Your task to perform on an android device: Show the shopping cart on costco.com. Search for "alienware area 51" on costco.com, select the first entry, add it to the cart, then select checkout. Image 0: 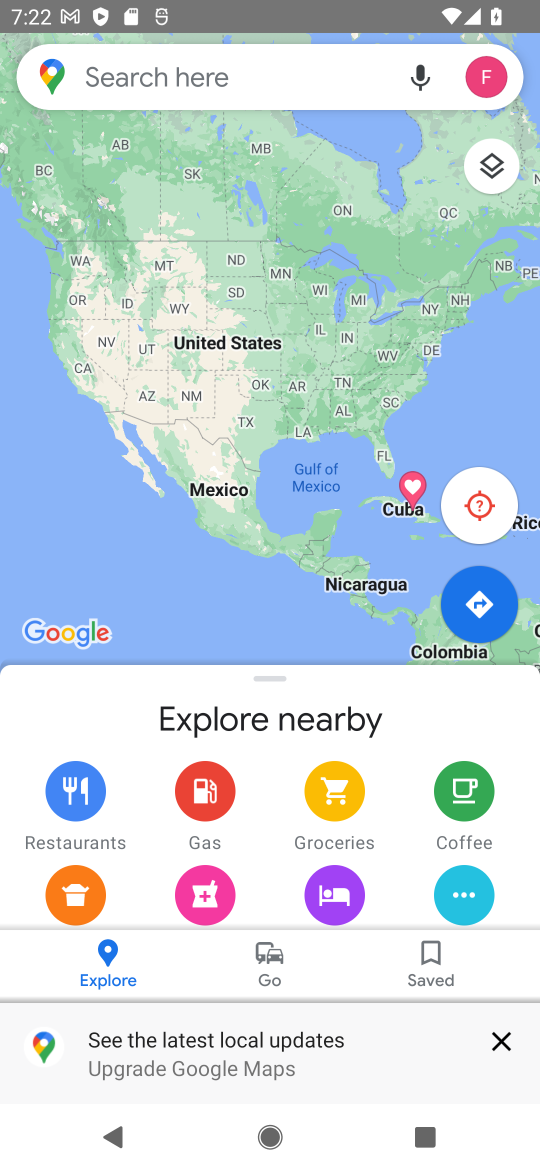
Step 0: click (508, 1030)
Your task to perform on an android device: Show the shopping cart on costco.com. Search for "alienware area 51" on costco.com, select the first entry, add it to the cart, then select checkout. Image 1: 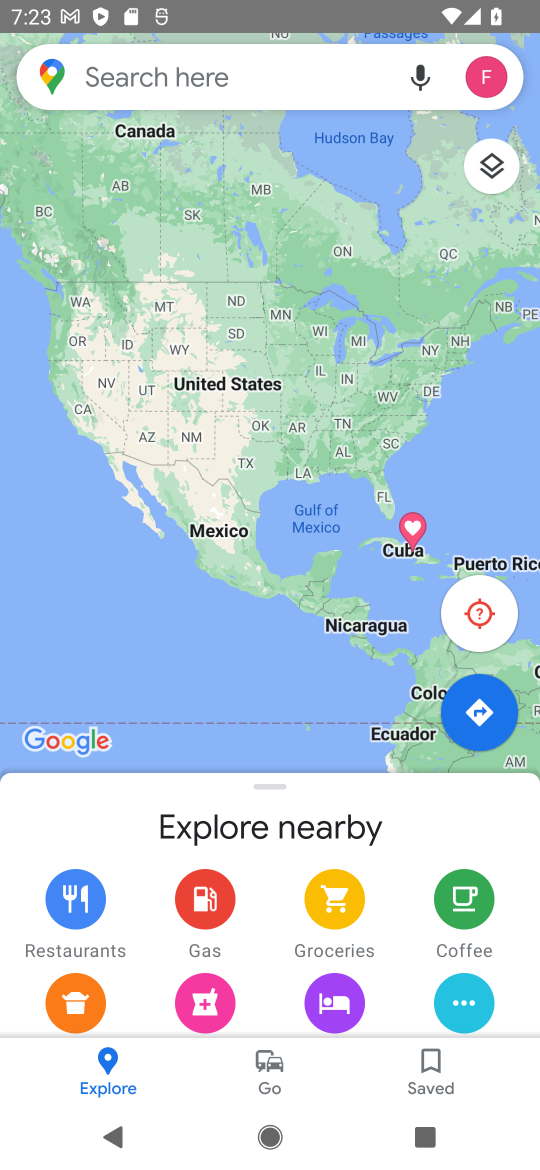
Step 1: press home button
Your task to perform on an android device: Show the shopping cart on costco.com. Search for "alienware area 51" on costco.com, select the first entry, add it to the cart, then select checkout. Image 2: 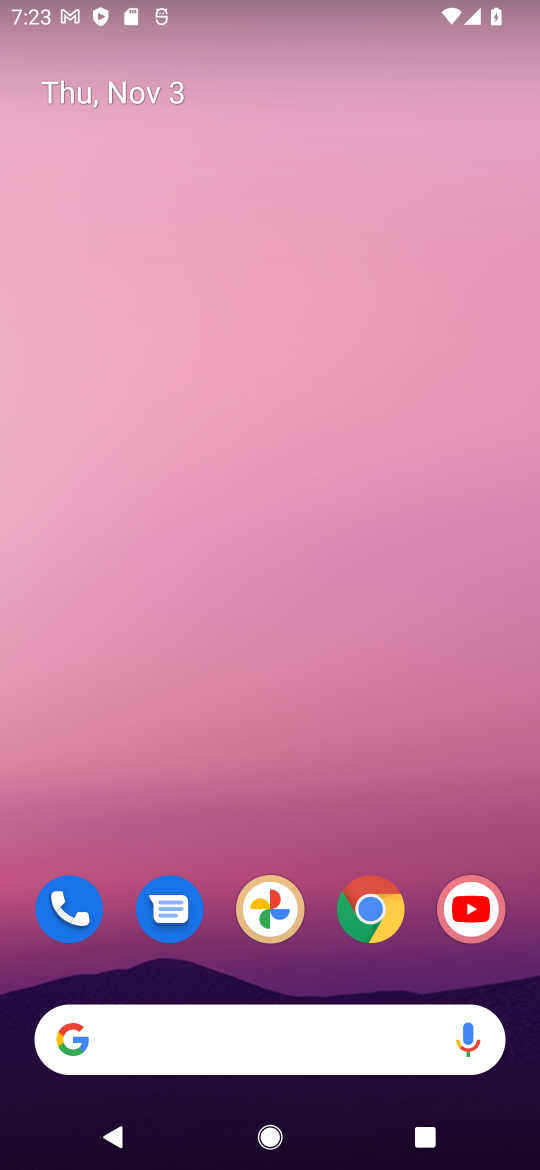
Step 2: drag from (302, 991) to (300, 421)
Your task to perform on an android device: Show the shopping cart on costco.com. Search for "alienware area 51" on costco.com, select the first entry, add it to the cart, then select checkout. Image 3: 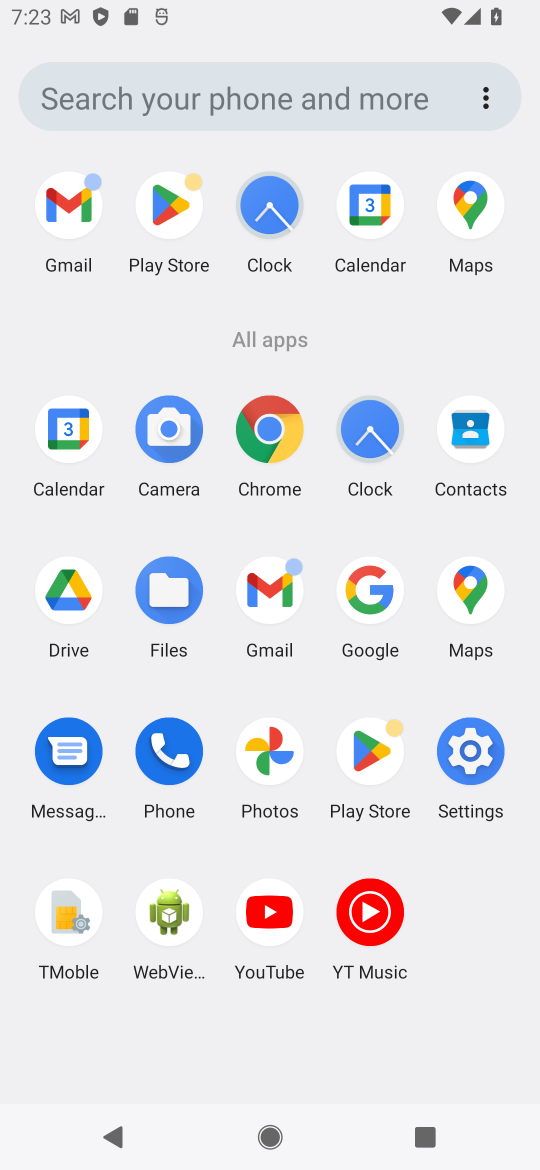
Step 3: click (378, 589)
Your task to perform on an android device: Show the shopping cart on costco.com. Search for "alienware area 51" on costco.com, select the first entry, add it to the cart, then select checkout. Image 4: 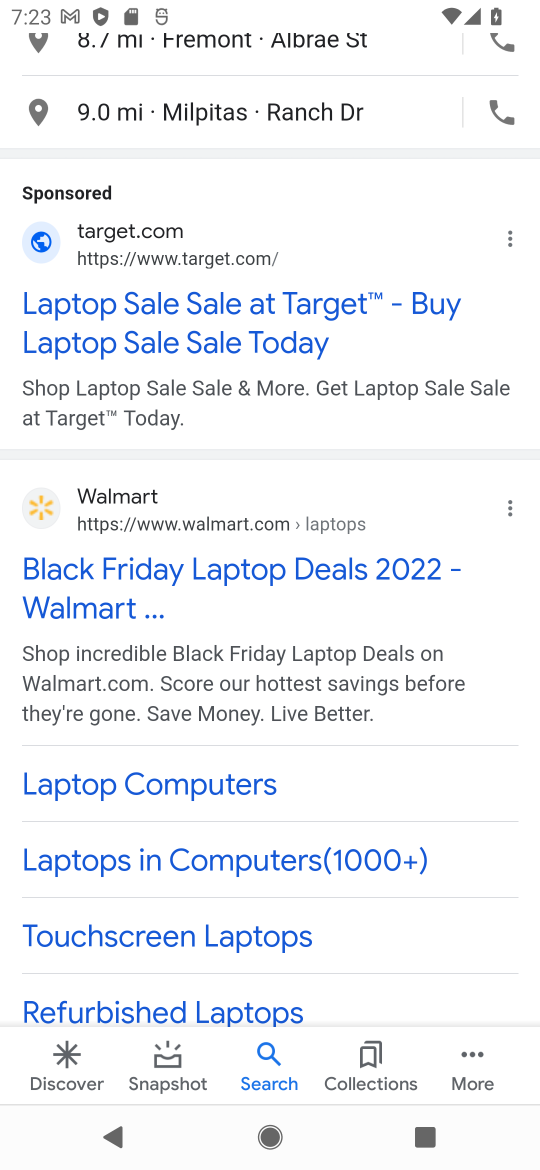
Step 4: drag from (253, 142) to (271, 637)
Your task to perform on an android device: Show the shopping cart on costco.com. Search for "alienware area 51" on costco.com, select the first entry, add it to the cart, then select checkout. Image 5: 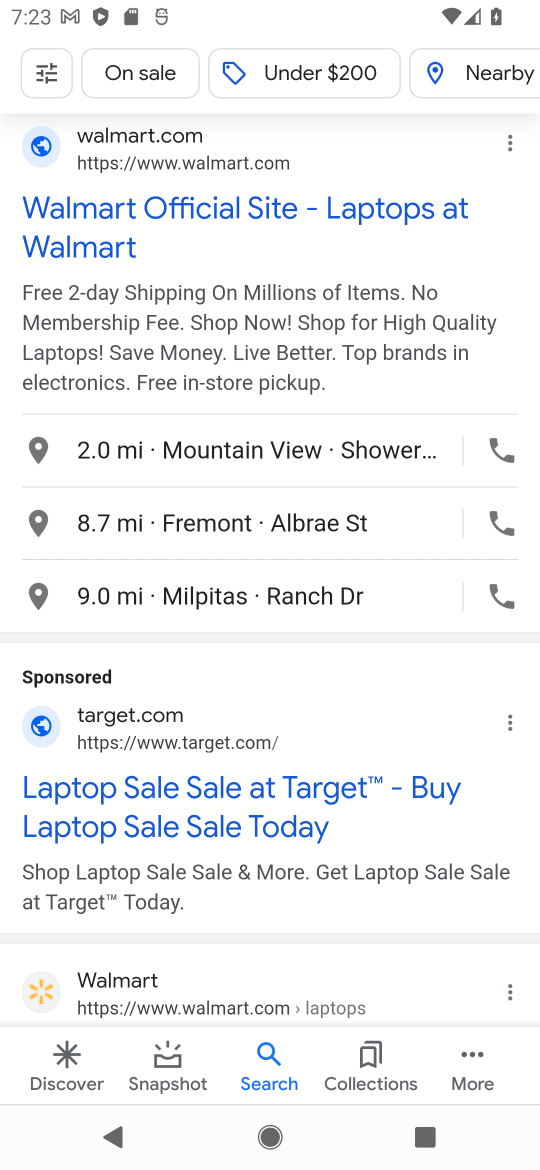
Step 5: drag from (300, 195) to (261, 1060)
Your task to perform on an android device: Show the shopping cart on costco.com. Search for "alienware area 51" on costco.com, select the first entry, add it to the cart, then select checkout. Image 6: 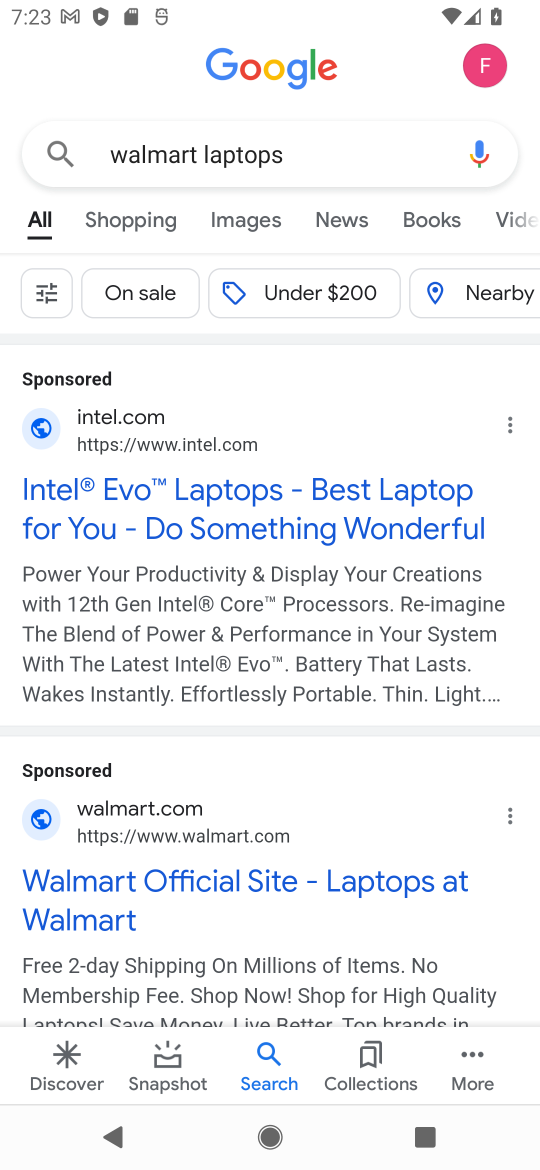
Step 6: click (225, 146)
Your task to perform on an android device: Show the shopping cart on costco.com. Search for "alienware area 51" on costco.com, select the first entry, add it to the cart, then select checkout. Image 7: 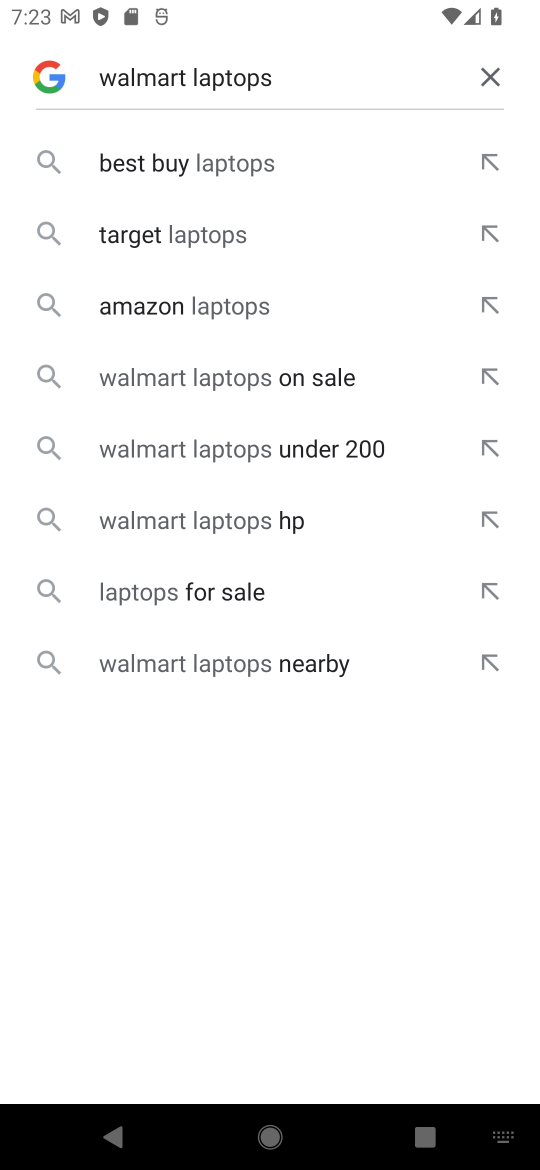
Step 7: click (510, 75)
Your task to perform on an android device: Show the shopping cart on costco.com. Search for "alienware area 51" on costco.com, select the first entry, add it to the cart, then select checkout. Image 8: 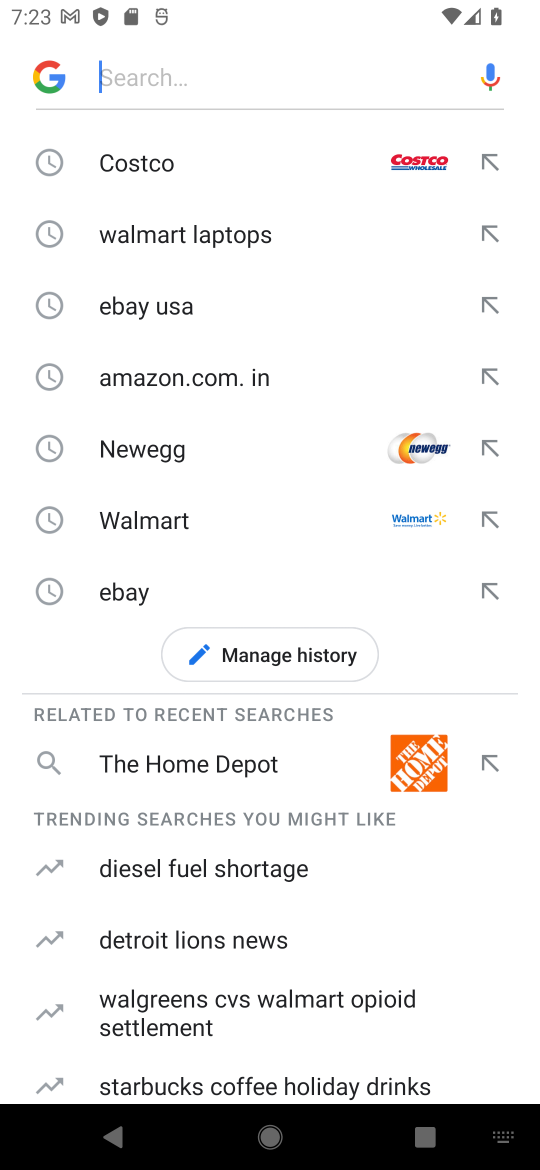
Step 8: click (152, 69)
Your task to perform on an android device: Show the shopping cart on costco.com. Search for "alienware area 51" on costco.com, select the first entry, add it to the cart, then select checkout. Image 9: 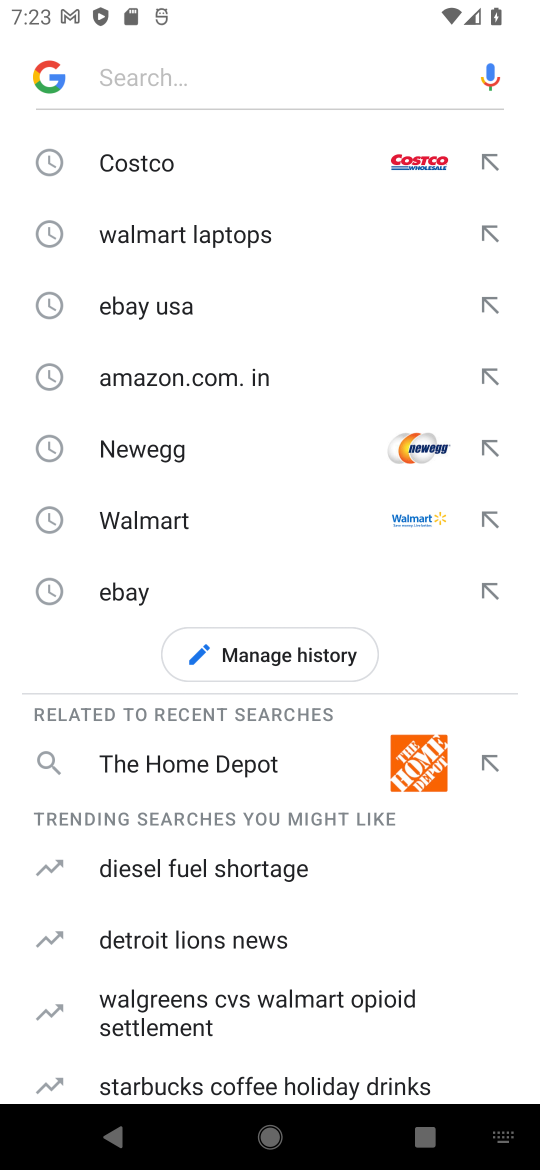
Step 9: type "costco "
Your task to perform on an android device: Show the shopping cart on costco.com. Search for "alienware area 51" on costco.com, select the first entry, add it to the cart, then select checkout. Image 10: 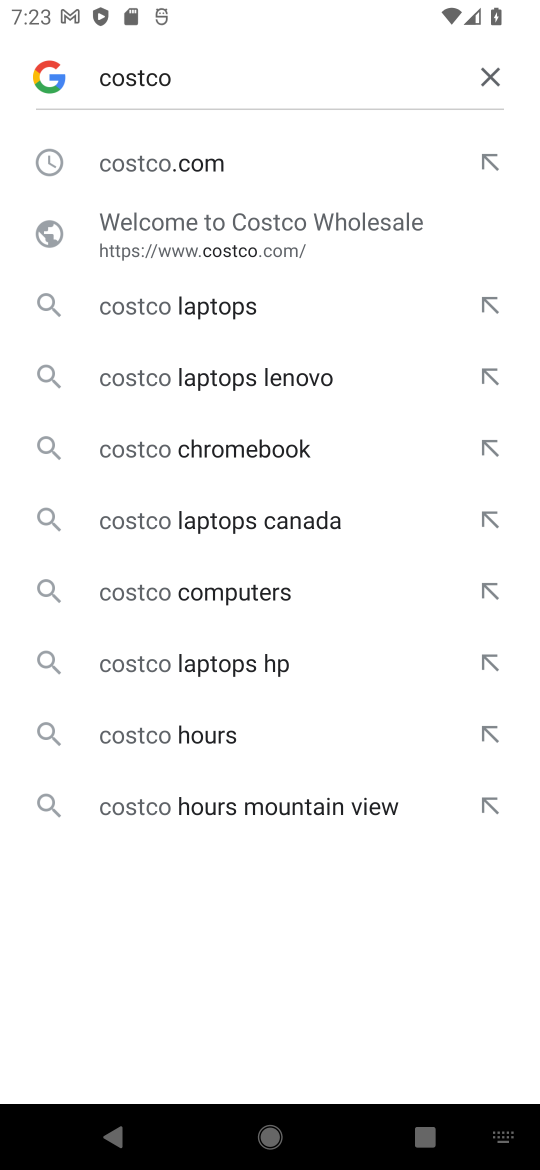
Step 10: click (157, 161)
Your task to perform on an android device: Show the shopping cart on costco.com. Search for "alienware area 51" on costco.com, select the first entry, add it to the cart, then select checkout. Image 11: 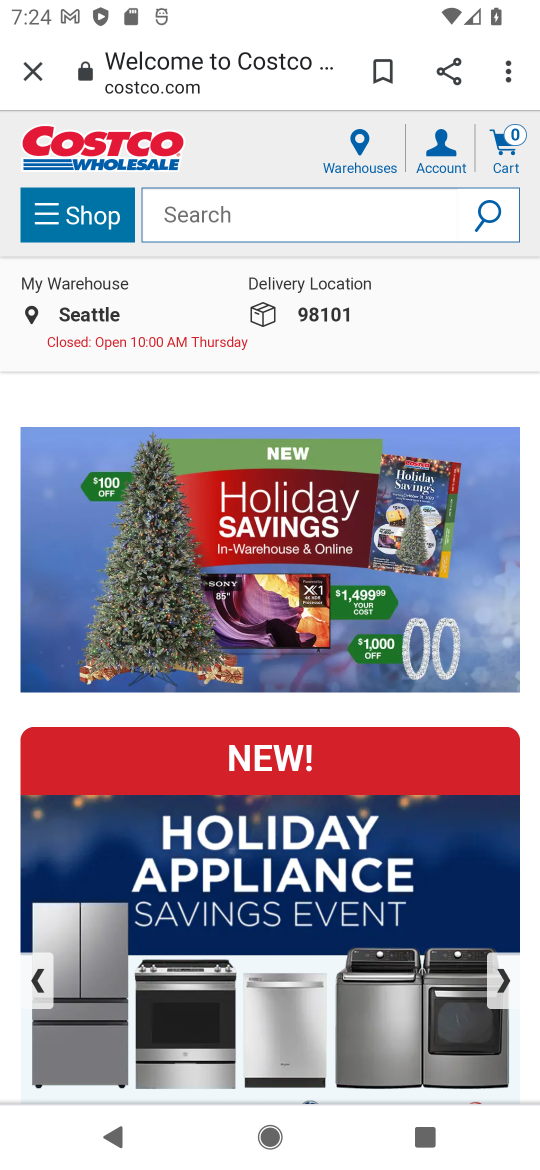
Step 11: click (315, 207)
Your task to perform on an android device: Show the shopping cart on costco.com. Search for "alienware area 51" on costco.com, select the first entry, add it to the cart, then select checkout. Image 12: 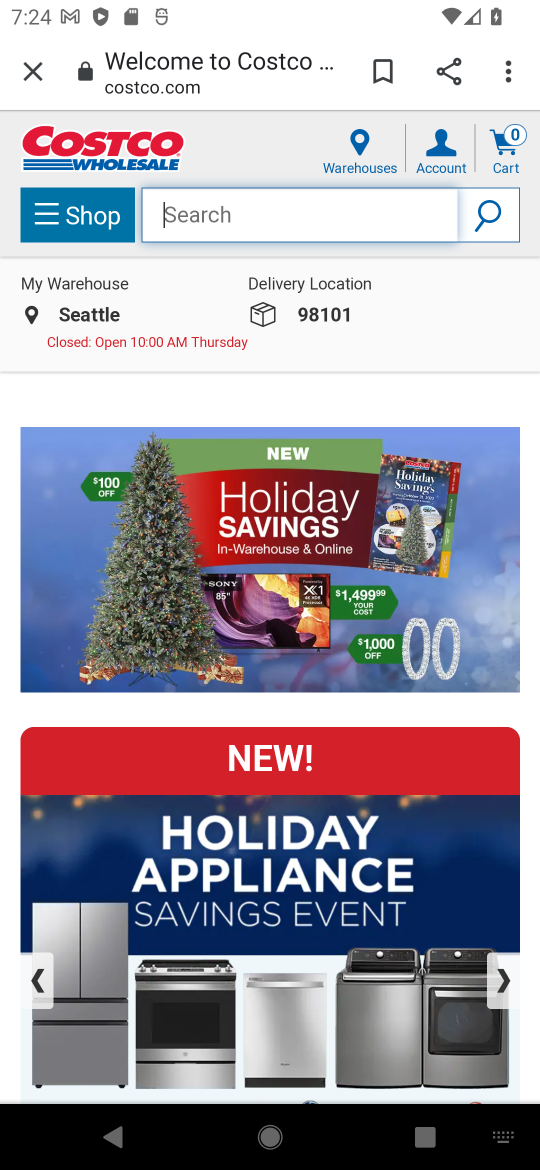
Step 12: click (283, 211)
Your task to perform on an android device: Show the shopping cart on costco.com. Search for "alienware area 51" on costco.com, select the first entry, add it to the cart, then select checkout. Image 13: 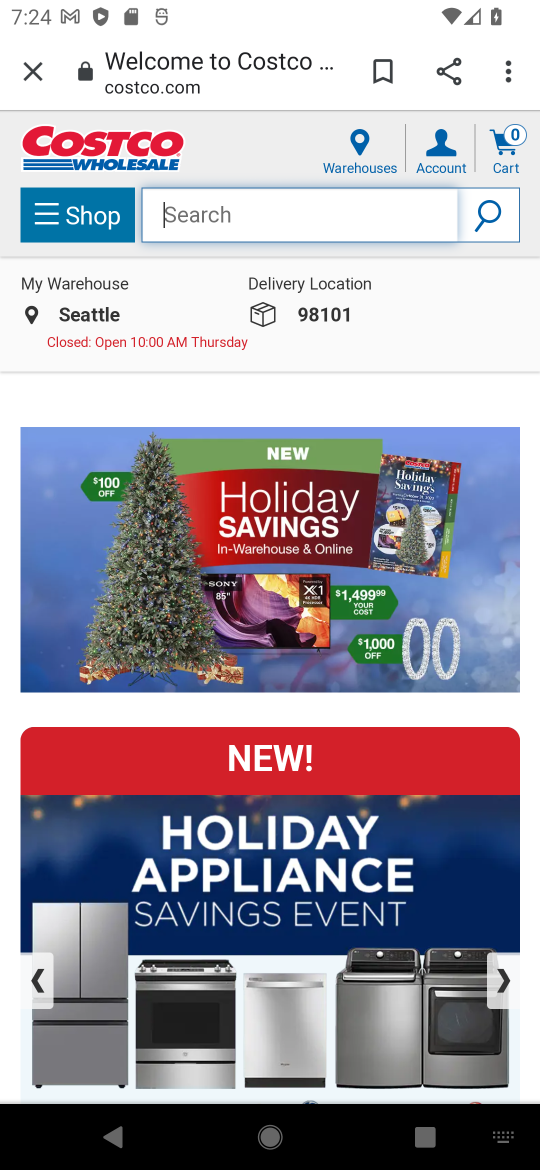
Step 13: type "alienware area 51" "
Your task to perform on an android device: Show the shopping cart on costco.com. Search for "alienware area 51" on costco.com, select the first entry, add it to the cart, then select checkout. Image 14: 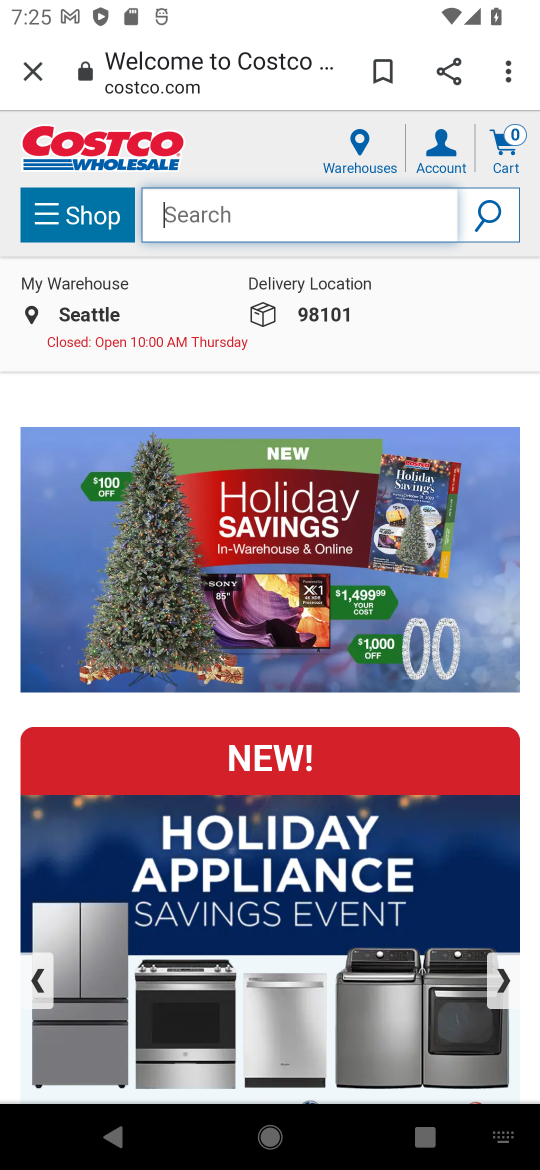
Step 14: click (274, 212)
Your task to perform on an android device: Show the shopping cart on costco.com. Search for "alienware area 51" on costco.com, select the first entry, add it to the cart, then select checkout. Image 15: 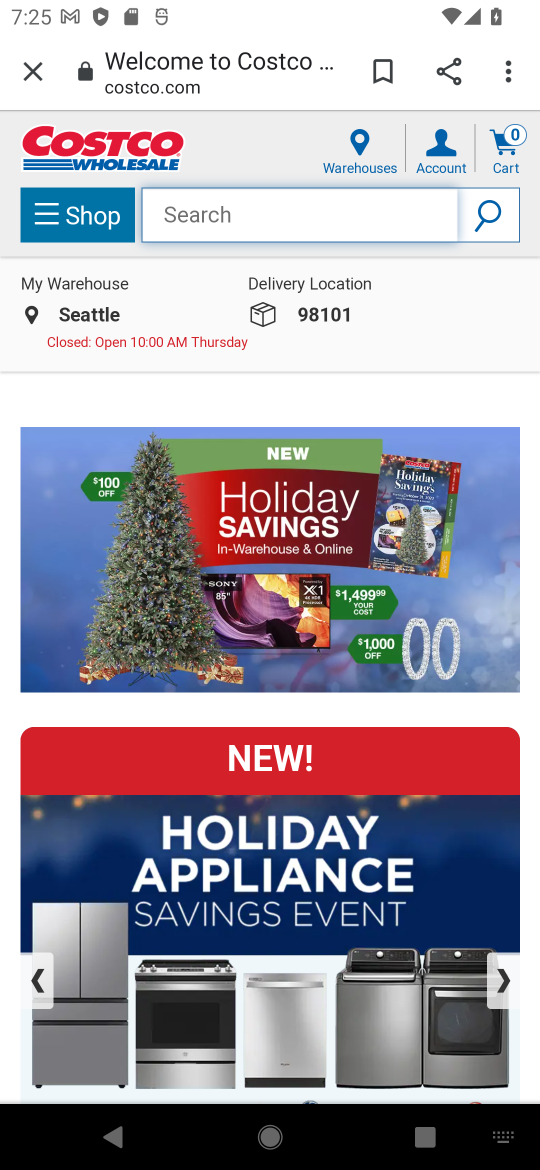
Step 15: type "alienware area 51 "
Your task to perform on an android device: Show the shopping cart on costco.com. Search for "alienware area 51" on costco.com, select the first entry, add it to the cart, then select checkout. Image 16: 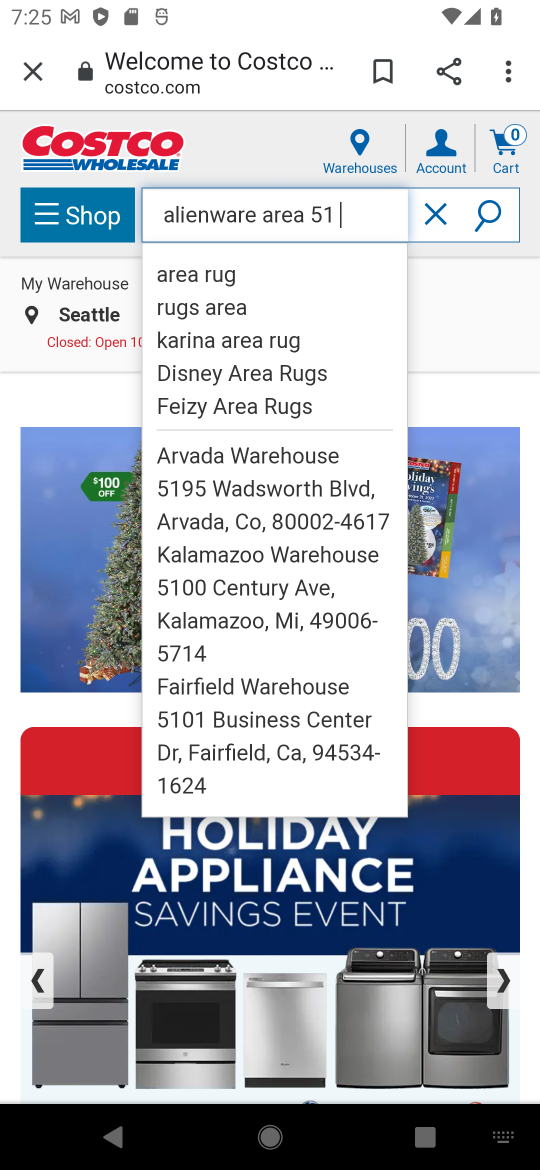
Step 16: click (491, 209)
Your task to perform on an android device: Show the shopping cart on costco.com. Search for "alienware area 51" on costco.com, select the first entry, add it to the cart, then select checkout. Image 17: 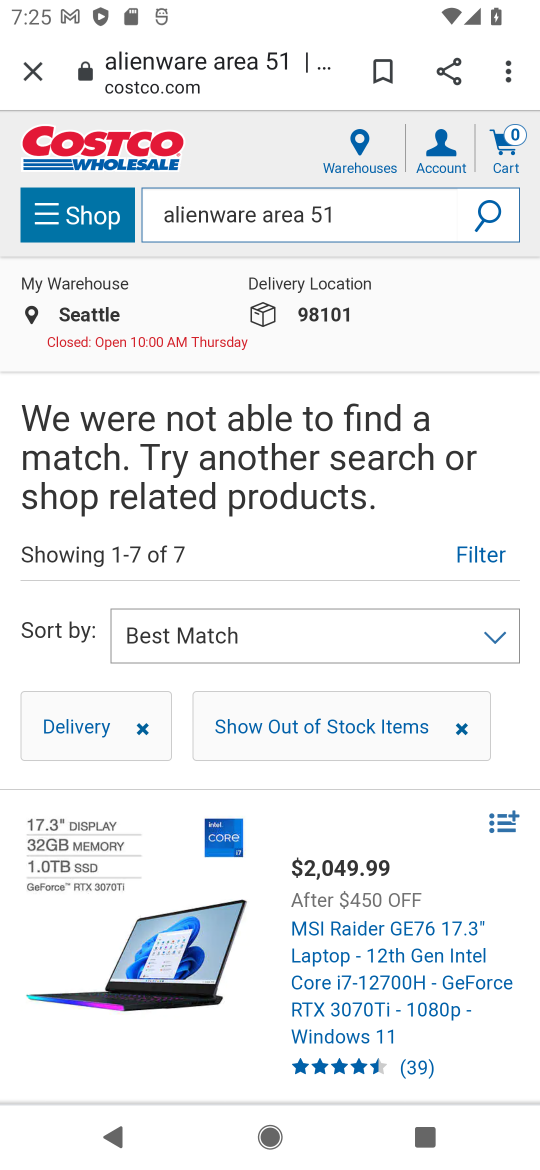
Step 17: drag from (377, 963) to (367, 493)
Your task to perform on an android device: Show the shopping cart on costco.com. Search for "alienware area 51" on costco.com, select the first entry, add it to the cart, then select checkout. Image 18: 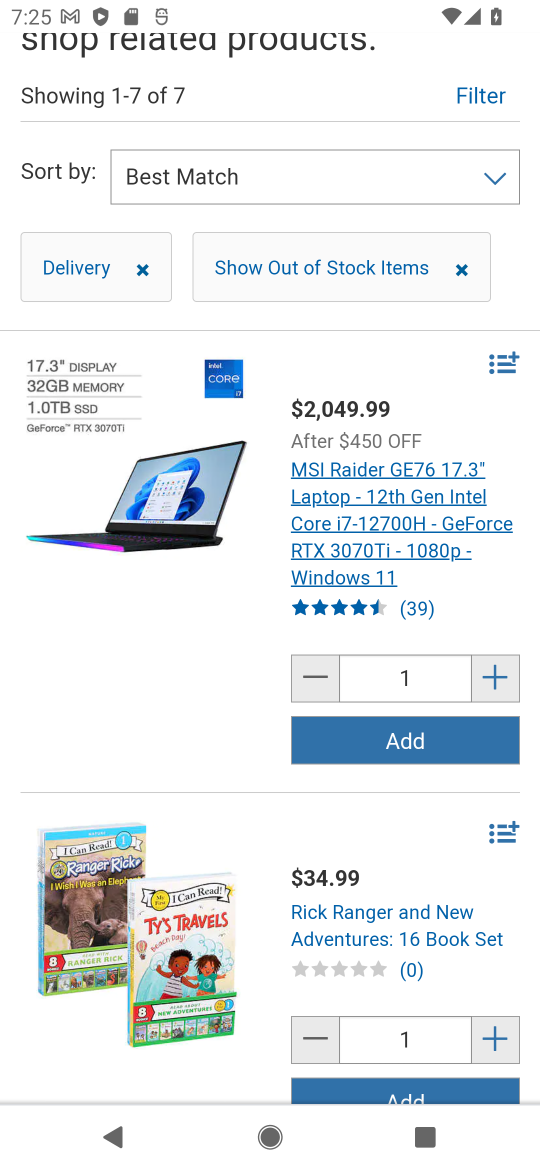
Step 18: click (356, 736)
Your task to perform on an android device: Show the shopping cart on costco.com. Search for "alienware area 51" on costco.com, select the first entry, add it to the cart, then select checkout. Image 19: 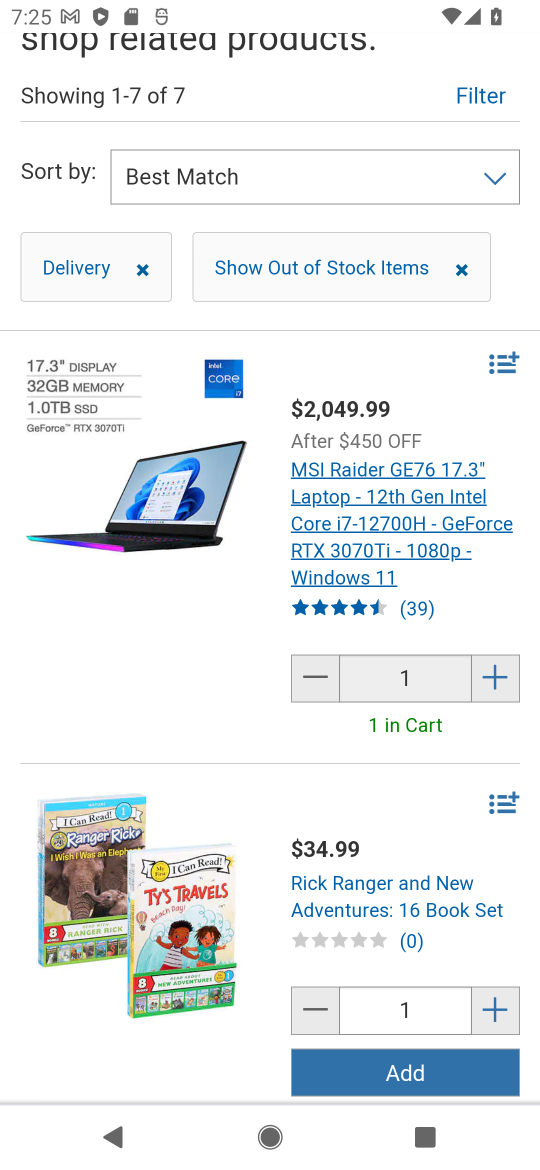
Step 19: task complete